Your task to perform on an android device: uninstall "Yahoo Mail" Image 0: 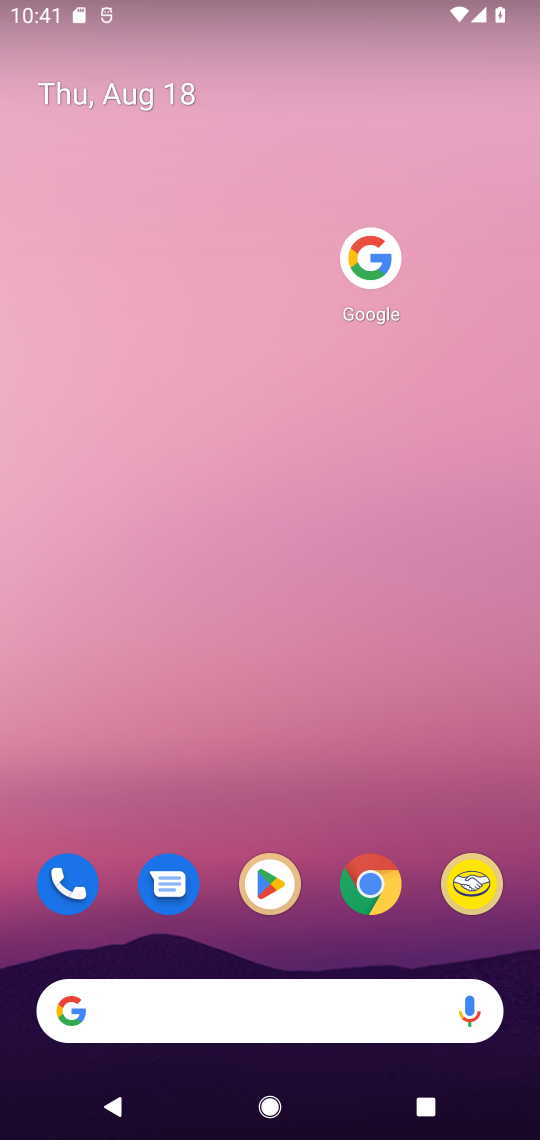
Step 0: drag from (271, 950) to (256, 92)
Your task to perform on an android device: uninstall "Yahoo Mail" Image 1: 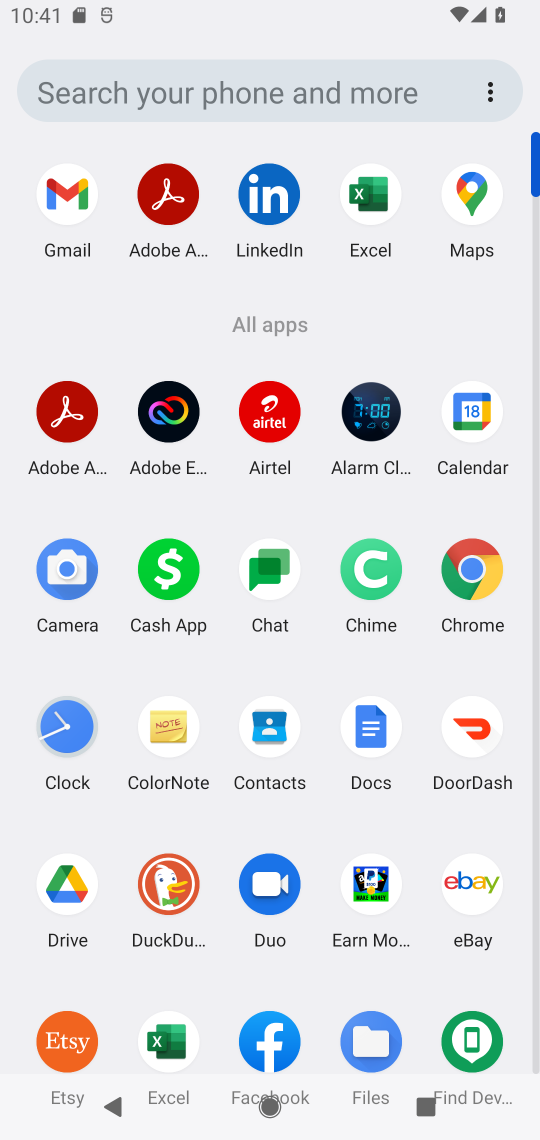
Step 1: press home button
Your task to perform on an android device: uninstall "Yahoo Mail" Image 2: 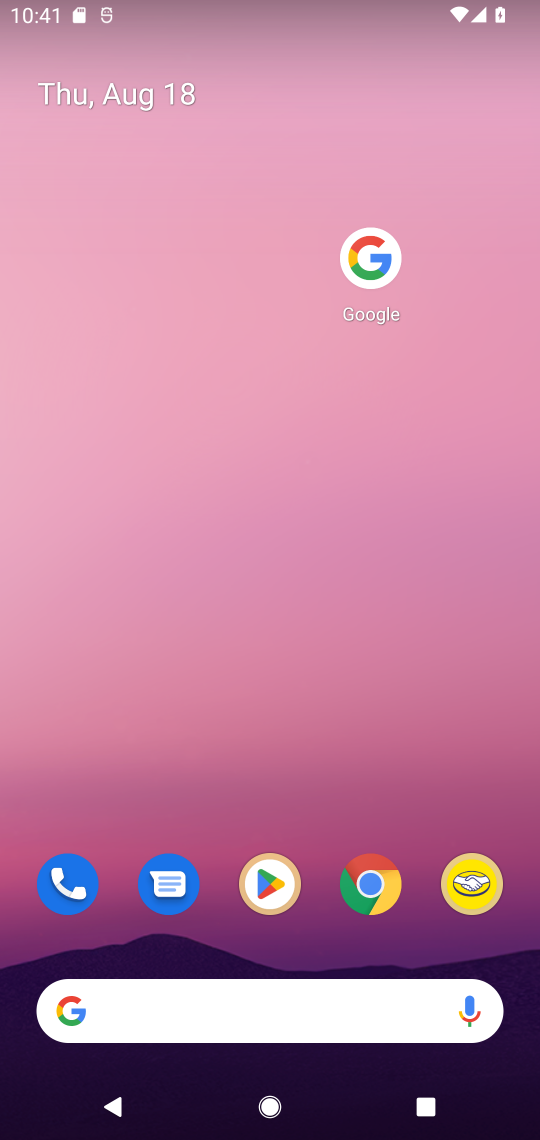
Step 2: click (274, 889)
Your task to perform on an android device: uninstall "Yahoo Mail" Image 3: 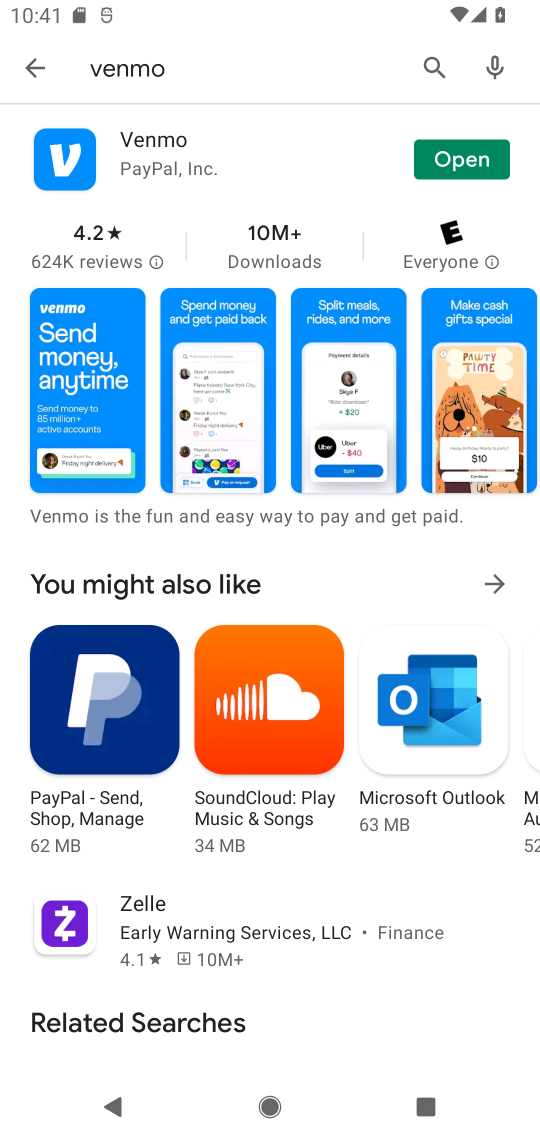
Step 3: click (434, 92)
Your task to perform on an android device: uninstall "Yahoo Mail" Image 4: 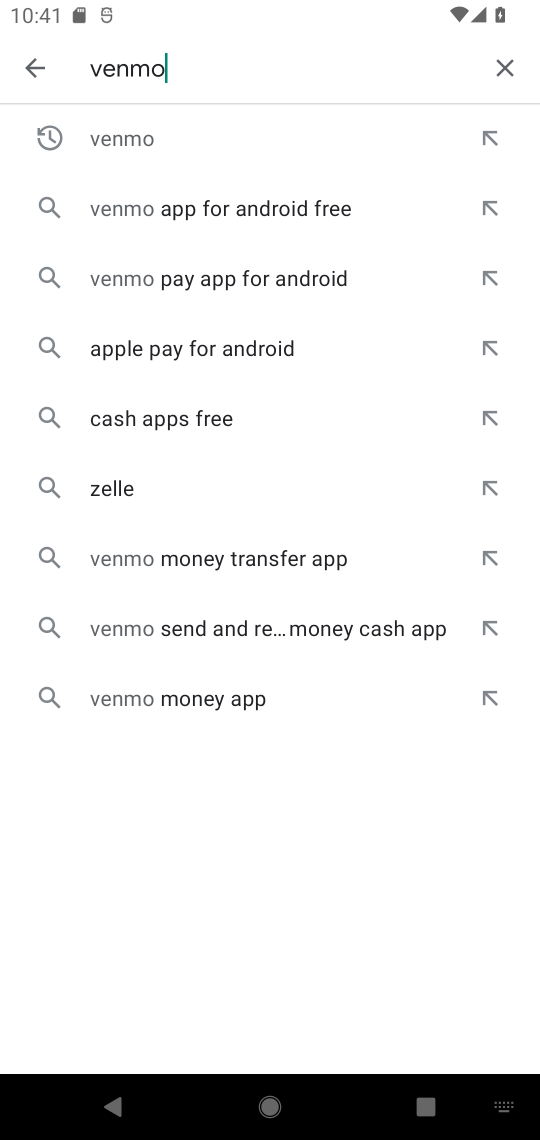
Step 4: click (506, 72)
Your task to perform on an android device: uninstall "Yahoo Mail" Image 5: 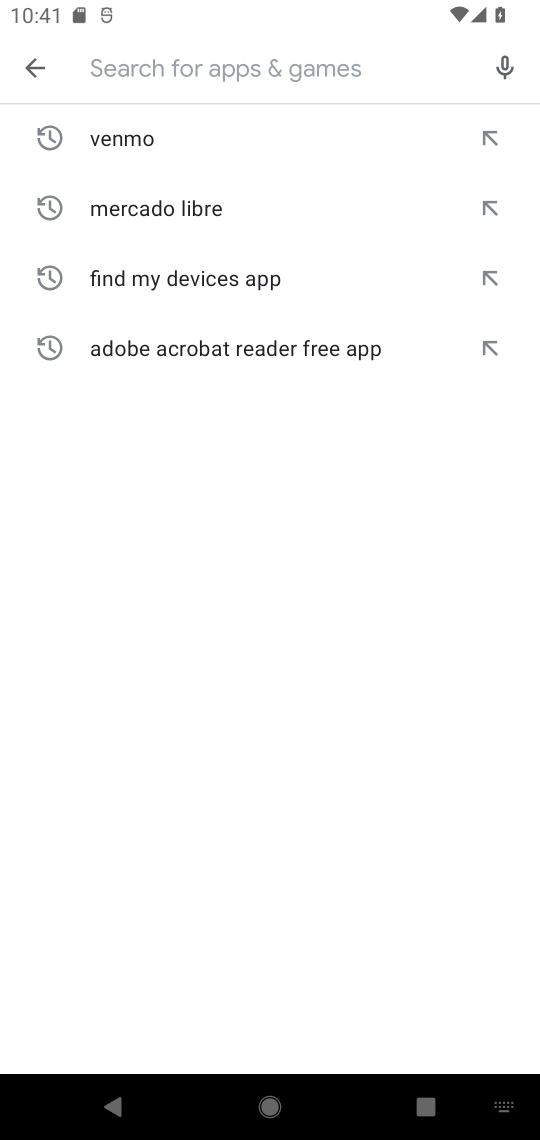
Step 5: type "yahoo"
Your task to perform on an android device: uninstall "Yahoo Mail" Image 6: 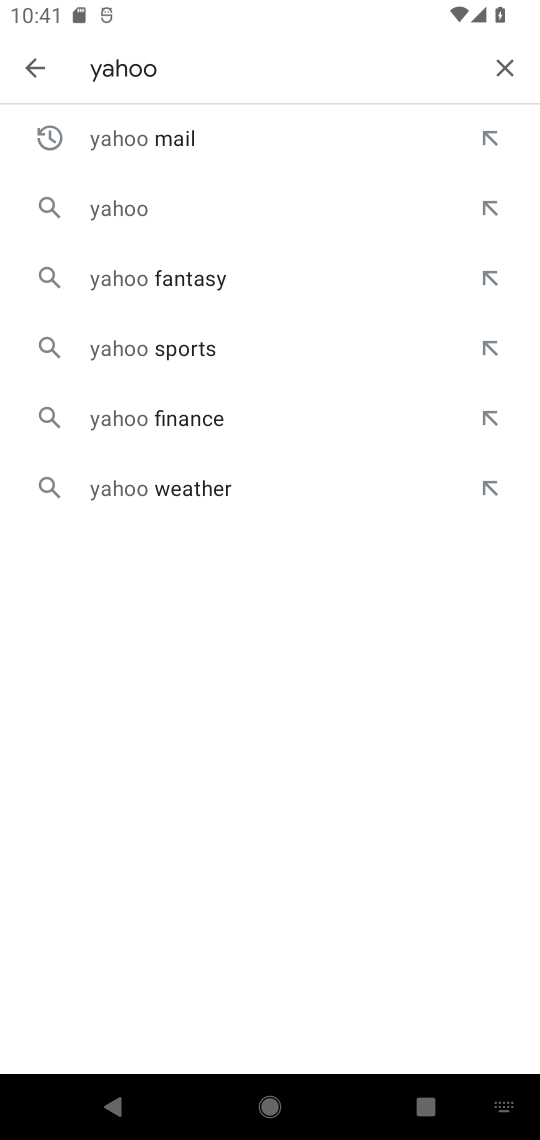
Step 6: click (212, 147)
Your task to perform on an android device: uninstall "Yahoo Mail" Image 7: 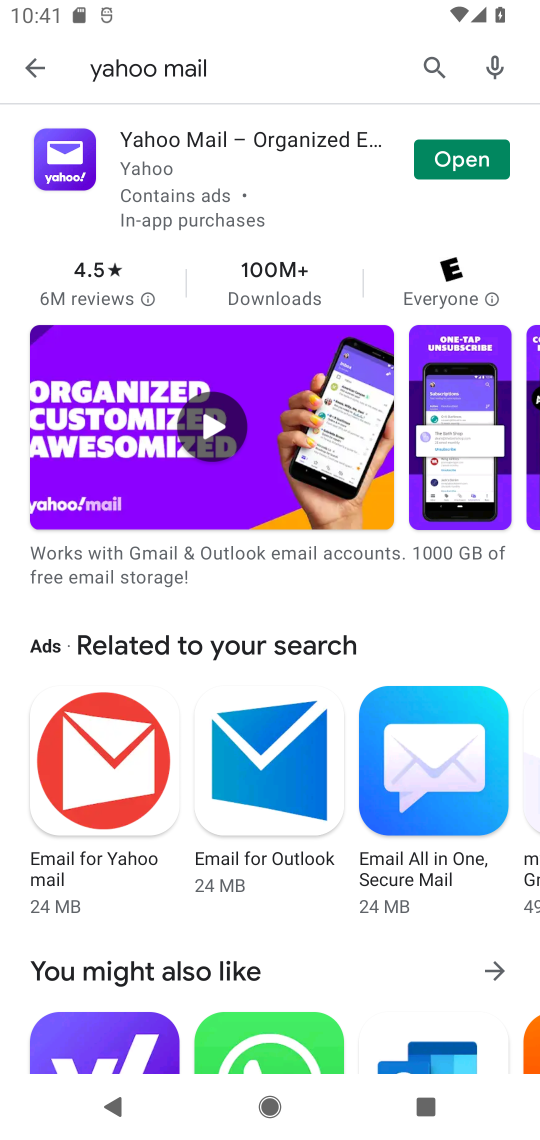
Step 7: click (440, 143)
Your task to perform on an android device: uninstall "Yahoo Mail" Image 8: 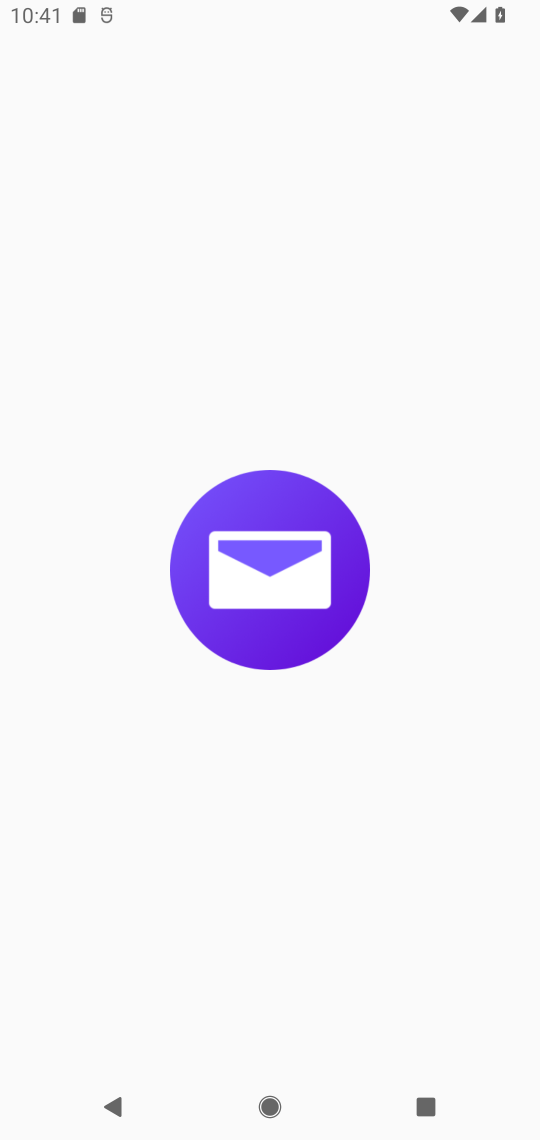
Step 8: click (484, 150)
Your task to perform on an android device: uninstall "Yahoo Mail" Image 9: 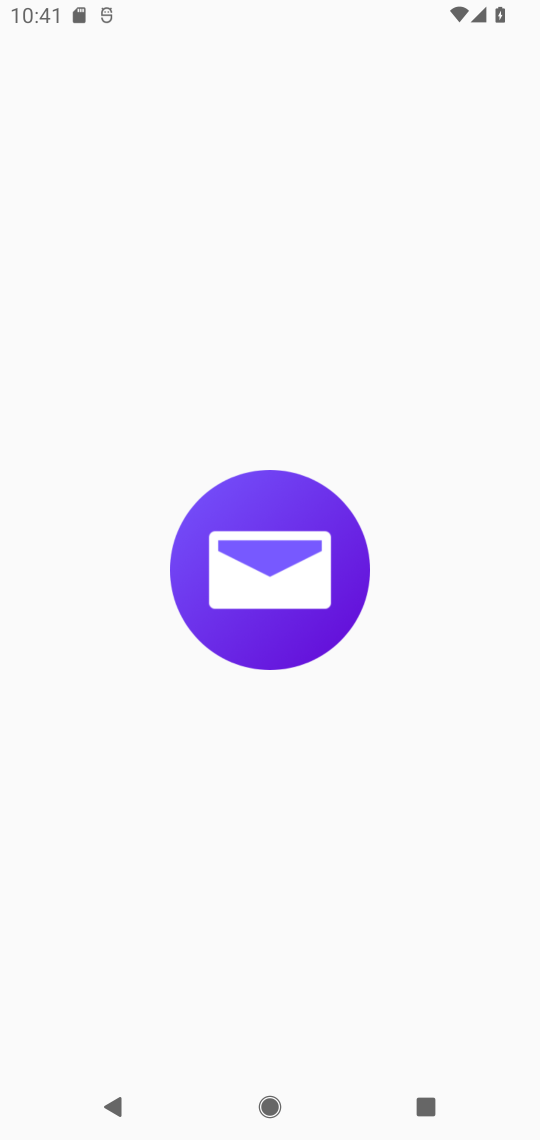
Step 9: task complete